Your task to perform on an android device: turn on location history Image 0: 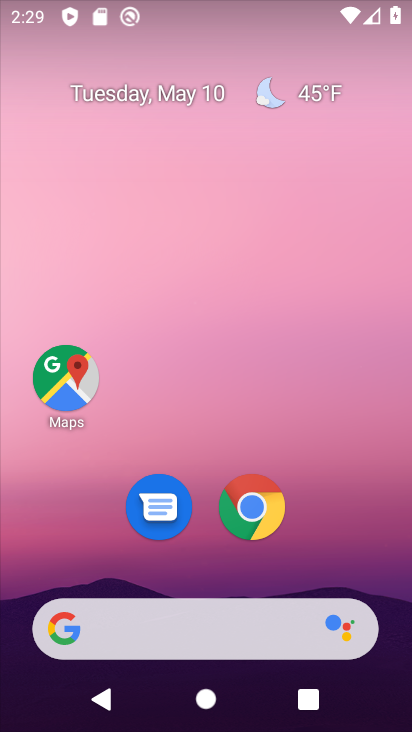
Step 0: drag from (222, 599) to (211, 213)
Your task to perform on an android device: turn on location history Image 1: 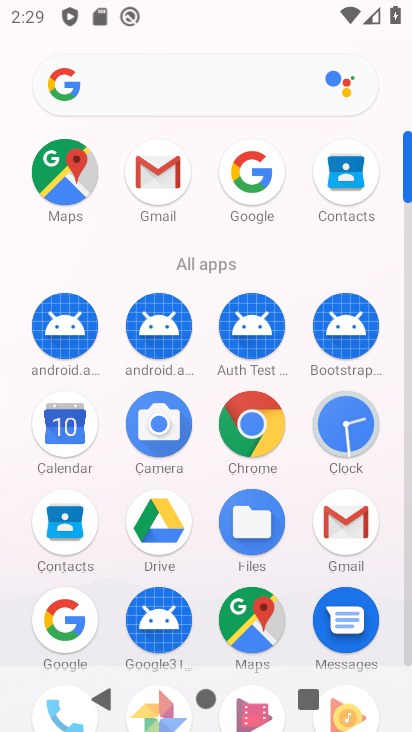
Step 1: drag from (105, 611) to (106, 222)
Your task to perform on an android device: turn on location history Image 2: 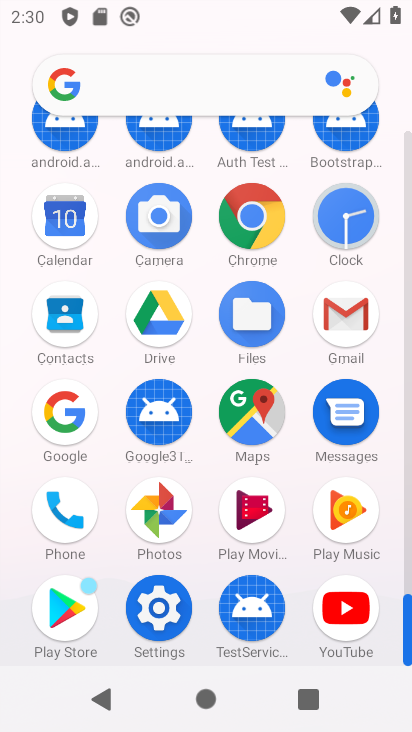
Step 2: click (153, 611)
Your task to perform on an android device: turn on location history Image 3: 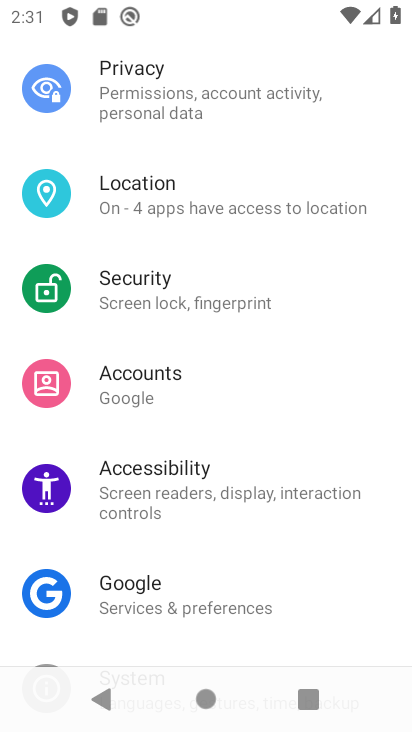
Step 3: click (142, 183)
Your task to perform on an android device: turn on location history Image 4: 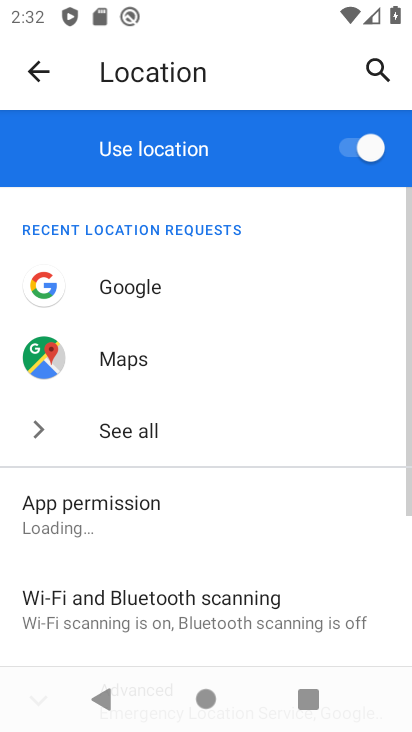
Step 4: drag from (151, 614) to (148, 357)
Your task to perform on an android device: turn on location history Image 5: 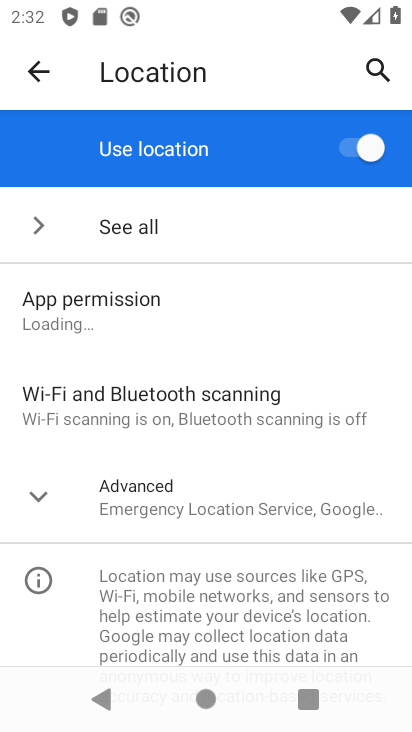
Step 5: click (143, 498)
Your task to perform on an android device: turn on location history Image 6: 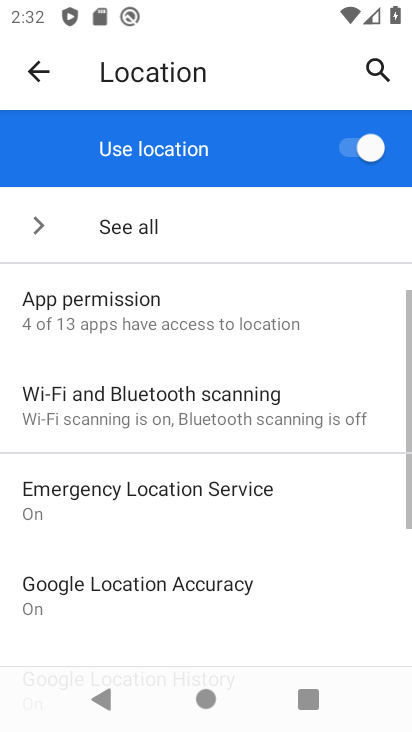
Step 6: drag from (182, 613) to (178, 346)
Your task to perform on an android device: turn on location history Image 7: 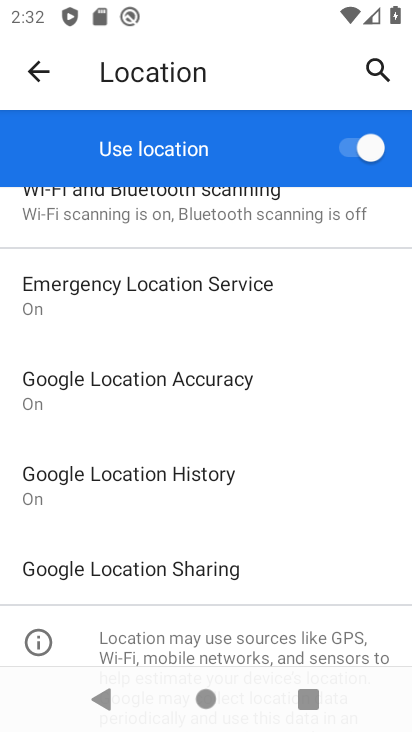
Step 7: click (69, 480)
Your task to perform on an android device: turn on location history Image 8: 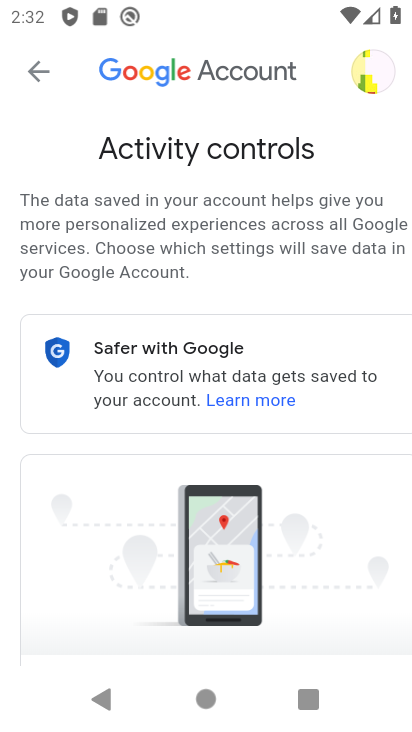
Step 8: task complete